Your task to perform on an android device: Search for sushi restaurants on Maps Image 0: 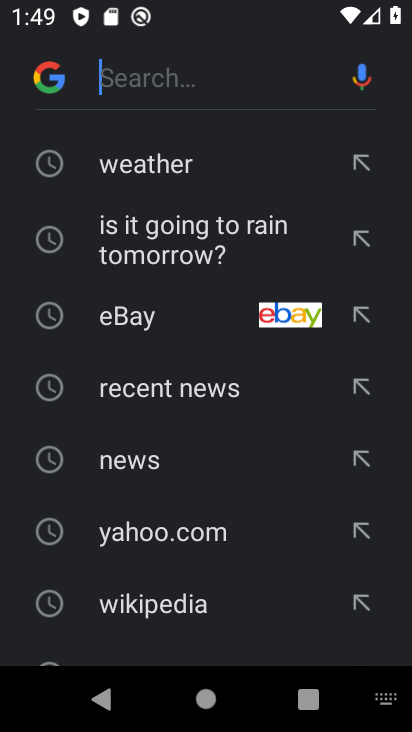
Step 0: press back button
Your task to perform on an android device: Search for sushi restaurants on Maps Image 1: 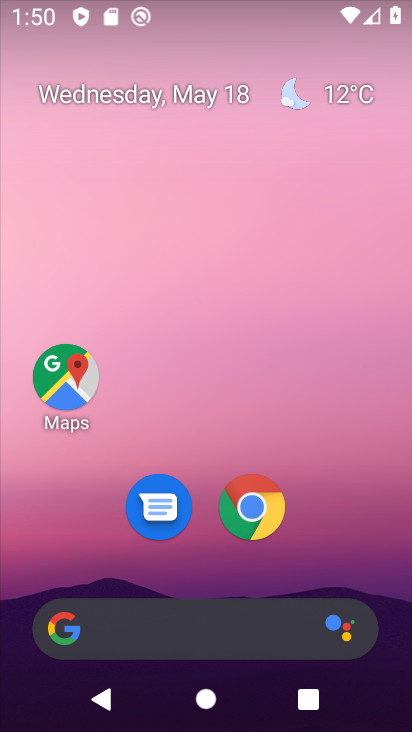
Step 1: drag from (384, 590) to (281, 208)
Your task to perform on an android device: Search for sushi restaurants on Maps Image 2: 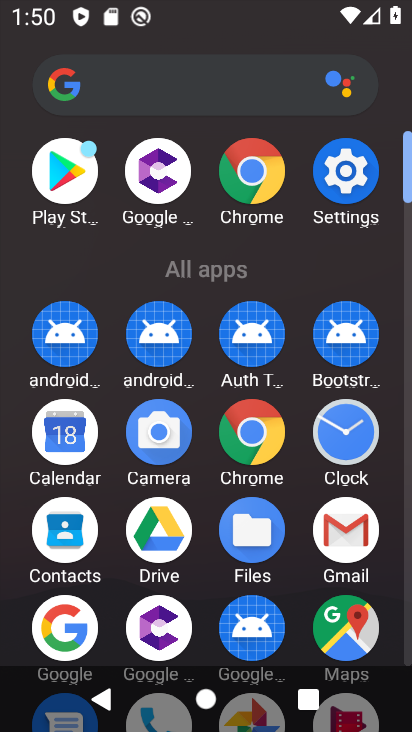
Step 2: drag from (409, 142) to (398, 86)
Your task to perform on an android device: Search for sushi restaurants on Maps Image 3: 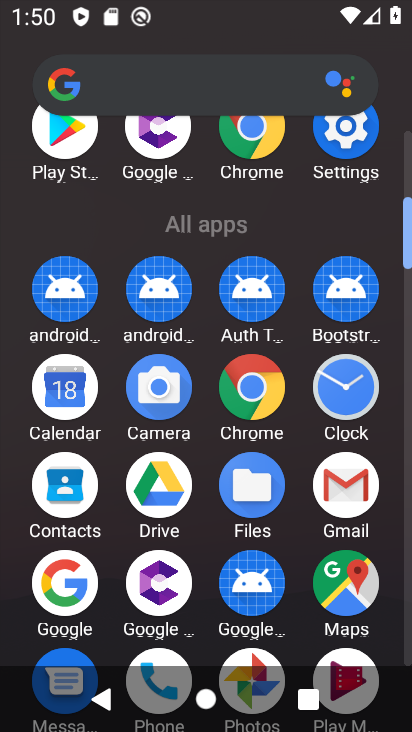
Step 3: drag from (407, 209) to (411, 107)
Your task to perform on an android device: Search for sushi restaurants on Maps Image 4: 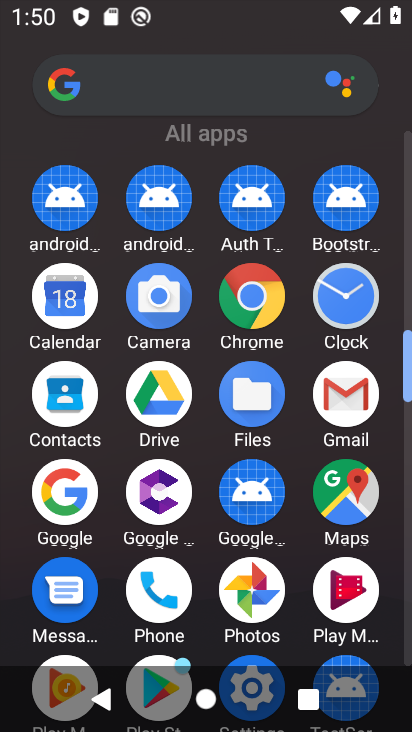
Step 4: click (338, 492)
Your task to perform on an android device: Search for sushi restaurants on Maps Image 5: 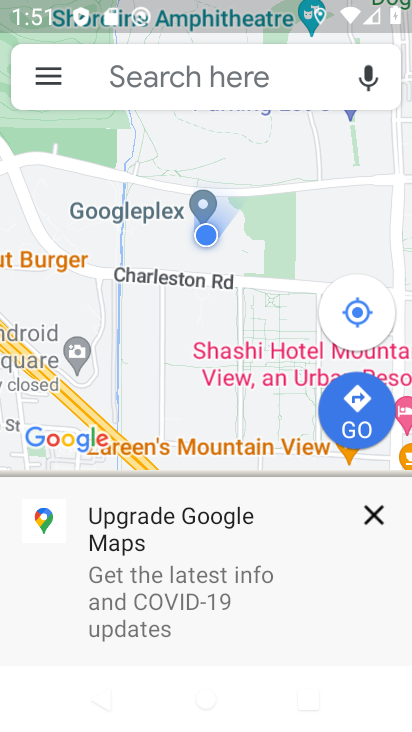
Step 5: click (200, 79)
Your task to perform on an android device: Search for sushi restaurants on Maps Image 6: 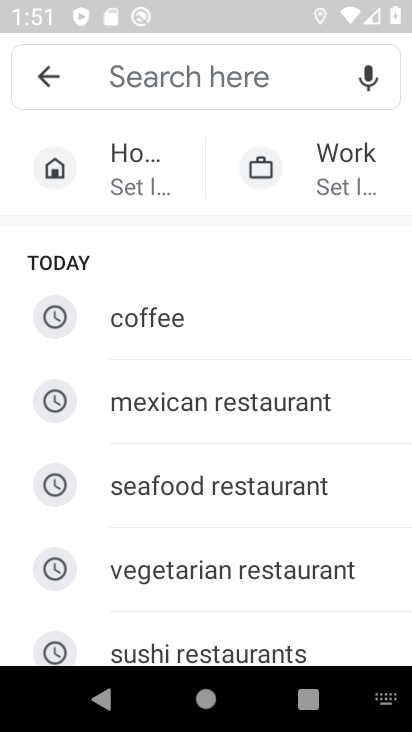
Step 6: type "sushi restaurants"
Your task to perform on an android device: Search for sushi restaurants on Maps Image 7: 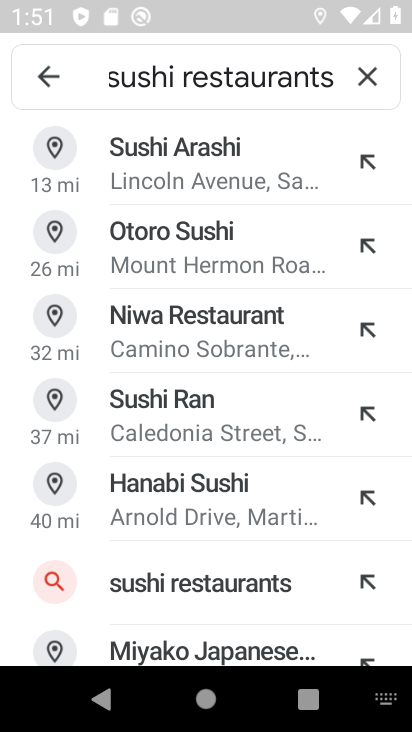
Step 7: click (135, 159)
Your task to perform on an android device: Search for sushi restaurants on Maps Image 8: 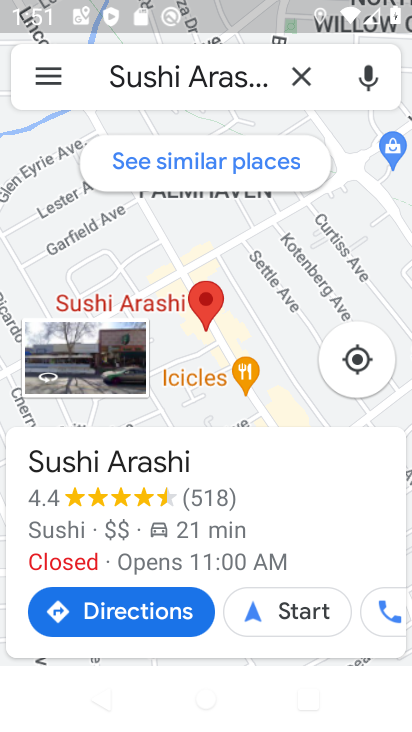
Step 8: click (289, 78)
Your task to perform on an android device: Search for sushi restaurants on Maps Image 9: 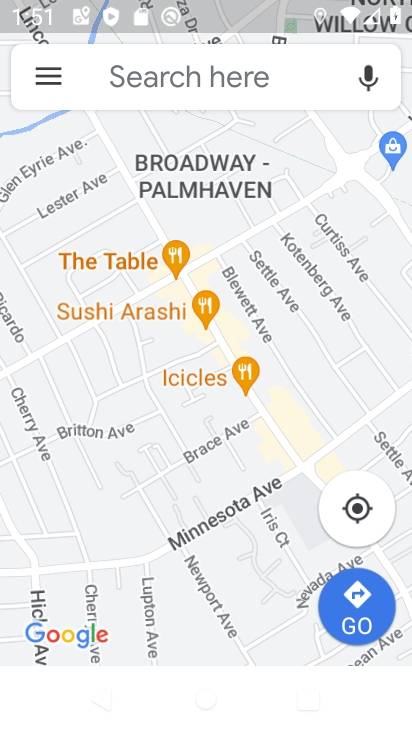
Step 9: type "sushi restaurants "
Your task to perform on an android device: Search for sushi restaurants on Maps Image 10: 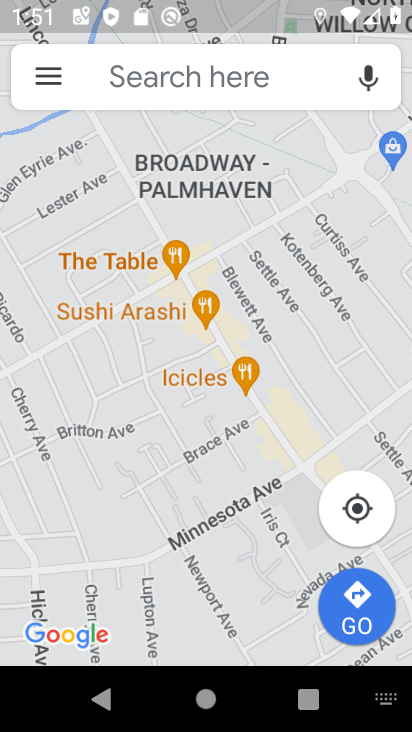
Step 10: click (123, 80)
Your task to perform on an android device: Search for sushi restaurants on Maps Image 11: 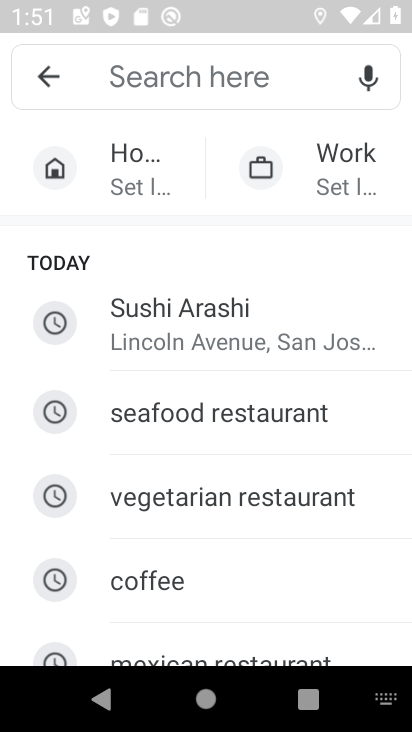
Step 11: type "sushi restaurants "
Your task to perform on an android device: Search for sushi restaurants on Maps Image 12: 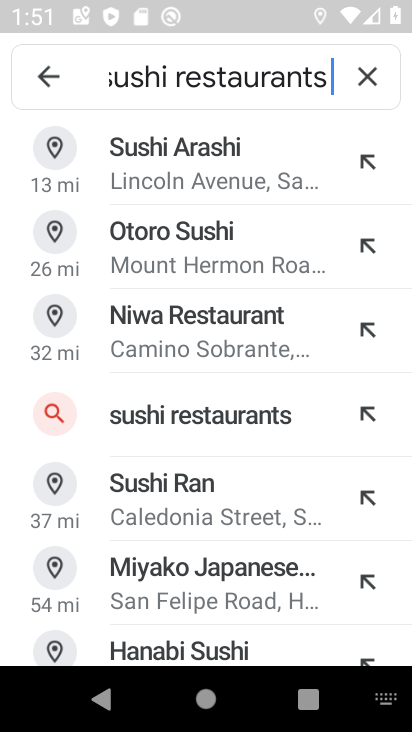
Step 12: click (197, 154)
Your task to perform on an android device: Search for sushi restaurants on Maps Image 13: 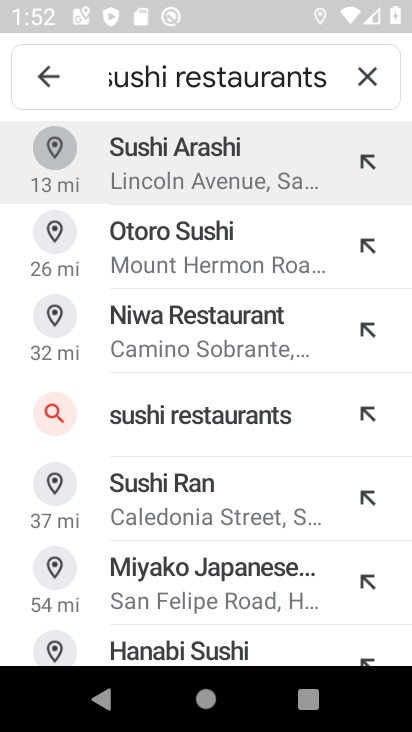
Step 13: click (179, 239)
Your task to perform on an android device: Search for sushi restaurants on Maps Image 14: 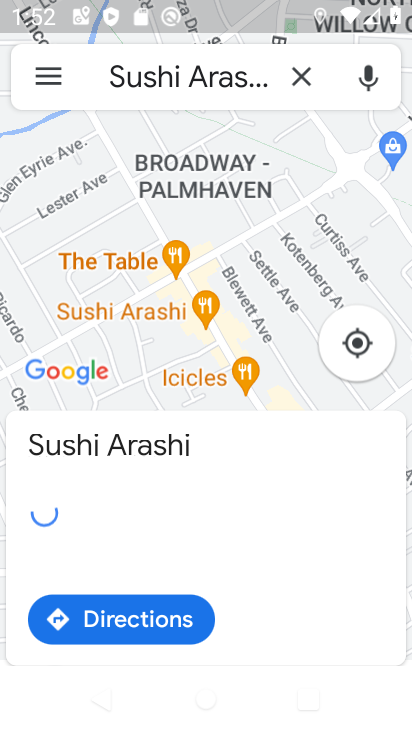
Step 14: click (210, 318)
Your task to perform on an android device: Search for sushi restaurants on Maps Image 15: 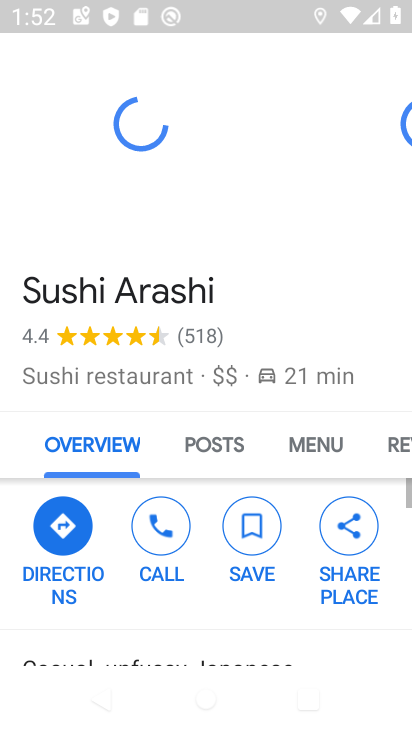
Step 15: task complete